Your task to perform on an android device: Open the web browser Image 0: 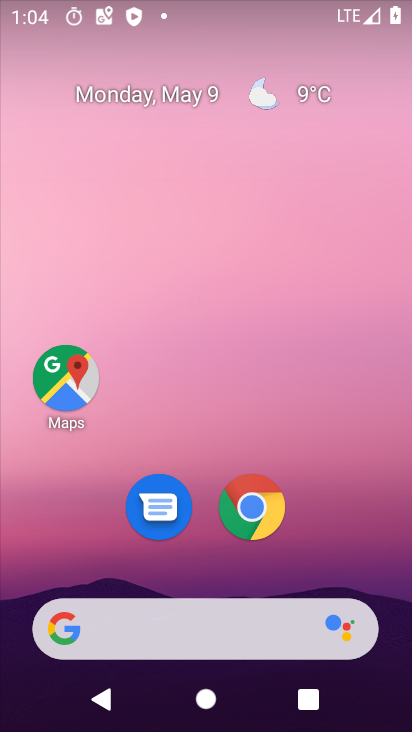
Step 0: click (254, 516)
Your task to perform on an android device: Open the web browser Image 1: 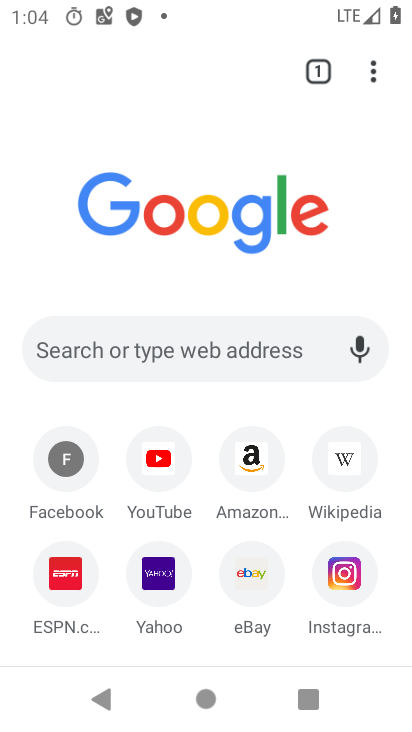
Step 1: task complete